Your task to perform on an android device: turn off wifi Image 0: 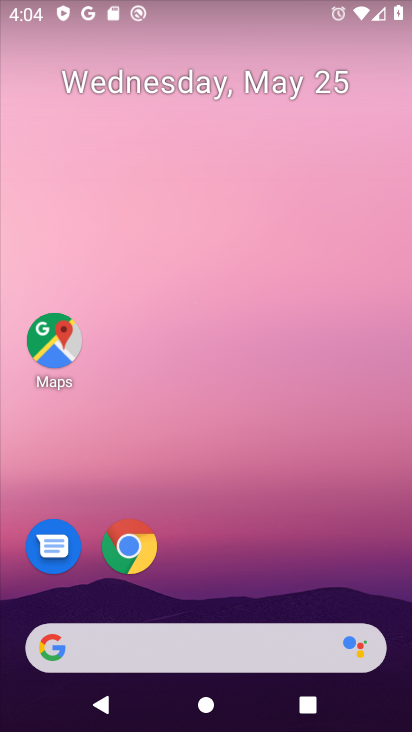
Step 0: drag from (242, 568) to (248, 36)
Your task to perform on an android device: turn off wifi Image 1: 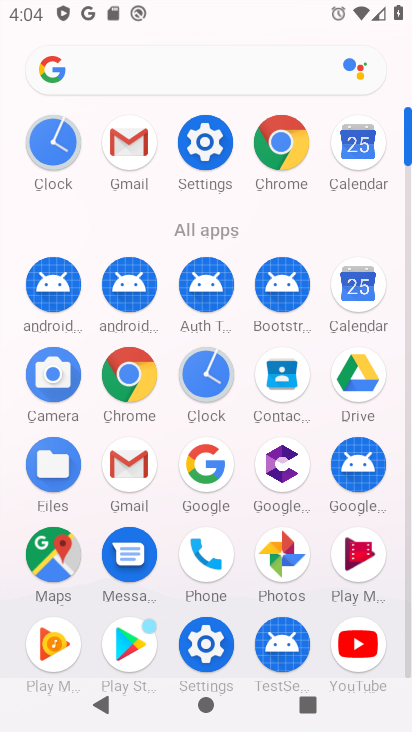
Step 1: click (207, 130)
Your task to perform on an android device: turn off wifi Image 2: 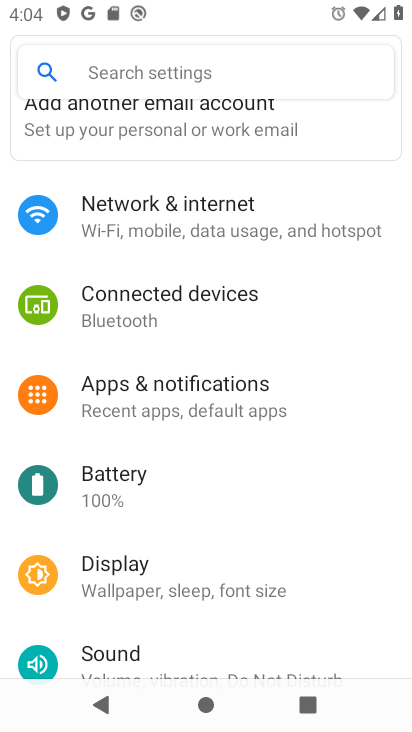
Step 2: click (184, 196)
Your task to perform on an android device: turn off wifi Image 3: 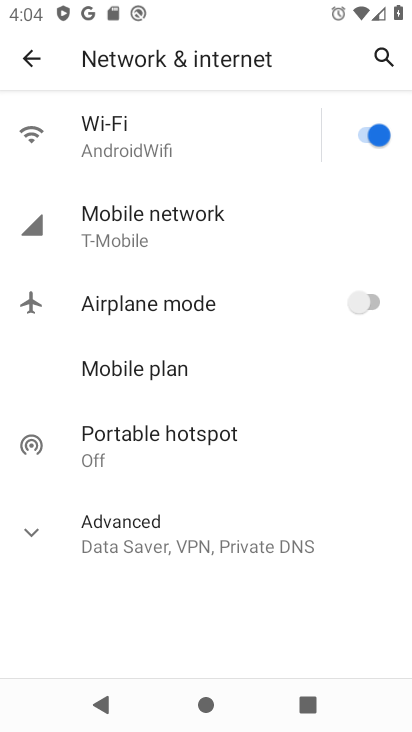
Step 3: click (367, 146)
Your task to perform on an android device: turn off wifi Image 4: 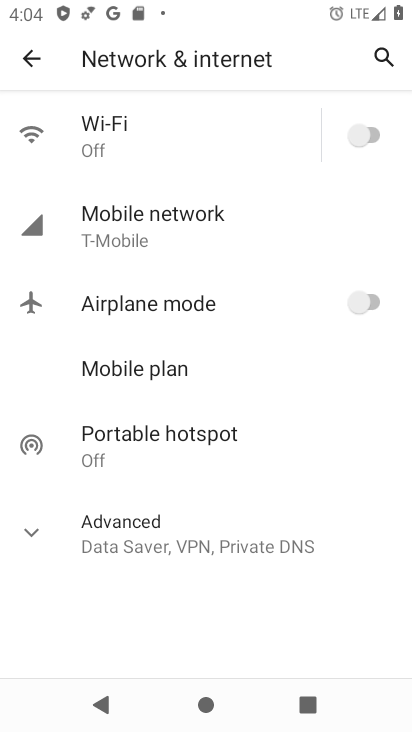
Step 4: task complete